Your task to perform on an android device: open app "Airtel Thanks" Image 0: 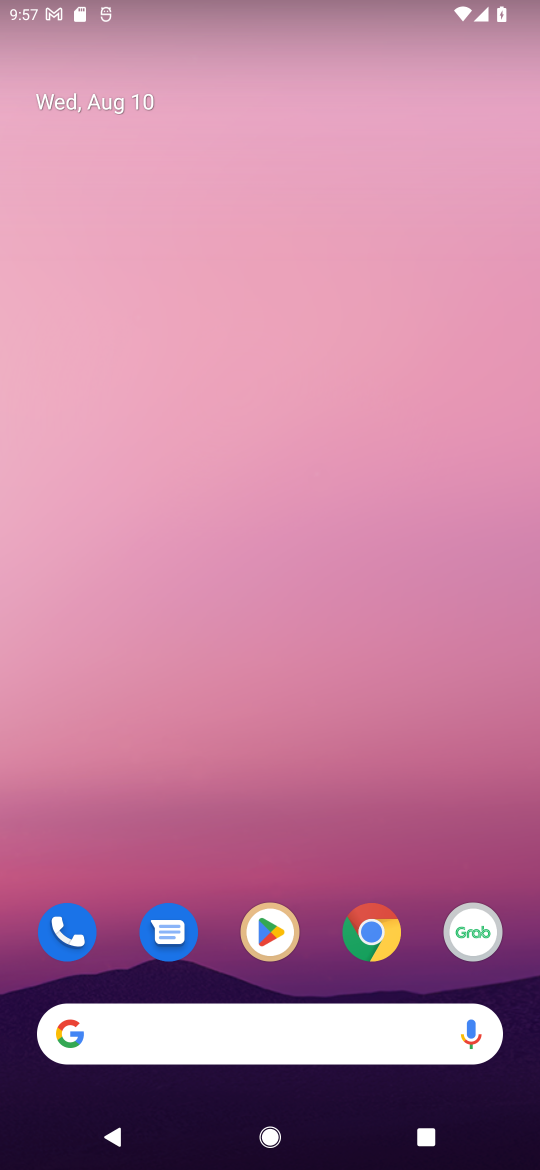
Step 0: click (261, 940)
Your task to perform on an android device: open app "Airtel Thanks" Image 1: 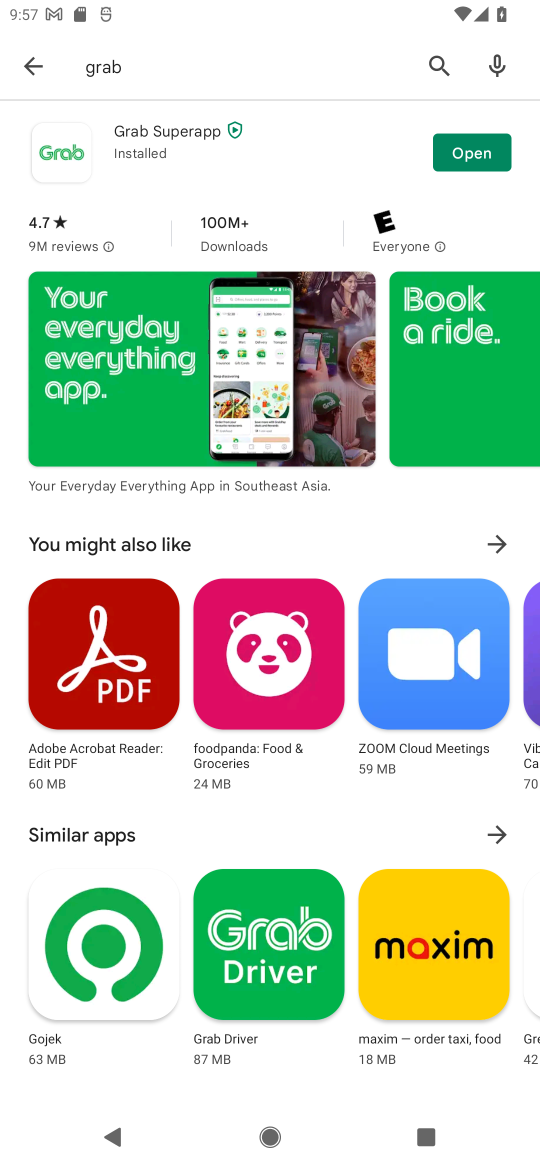
Step 1: click (430, 68)
Your task to perform on an android device: open app "Airtel Thanks" Image 2: 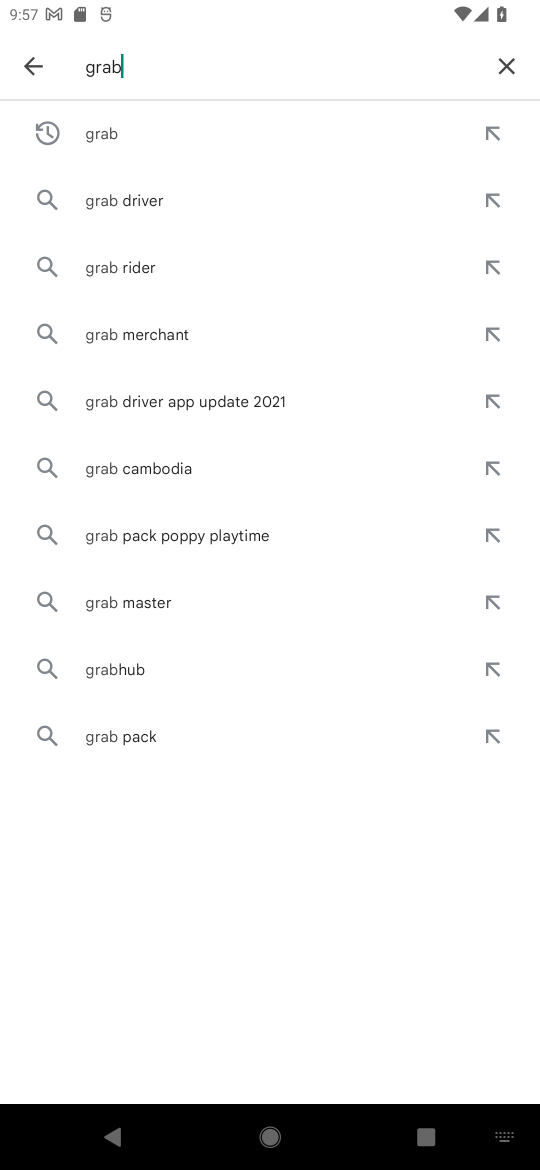
Step 2: click (508, 65)
Your task to perform on an android device: open app "Airtel Thanks" Image 3: 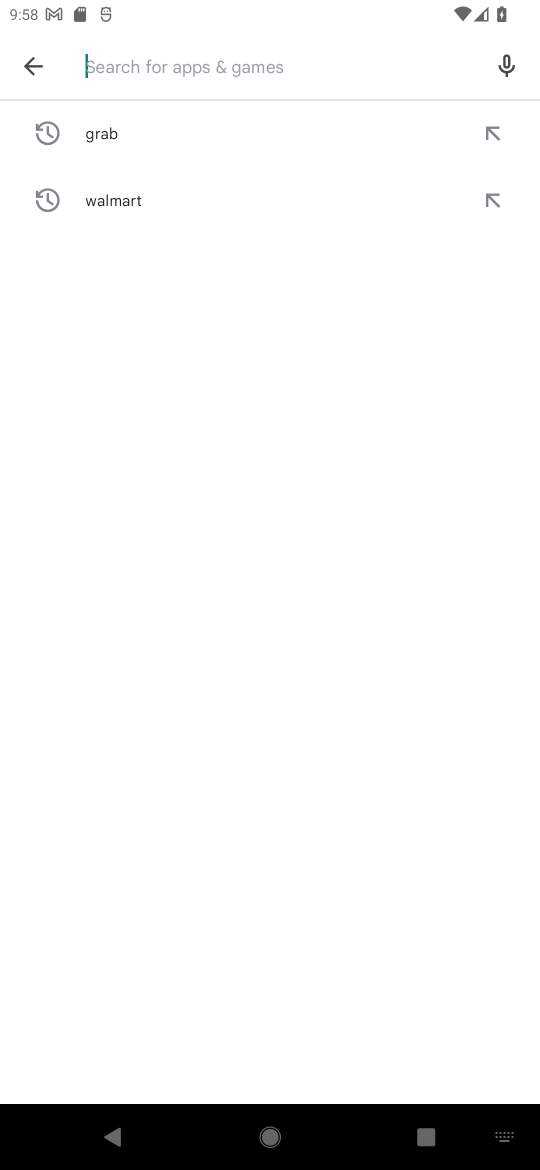
Step 3: type "airtel thanks"
Your task to perform on an android device: open app "Airtel Thanks" Image 4: 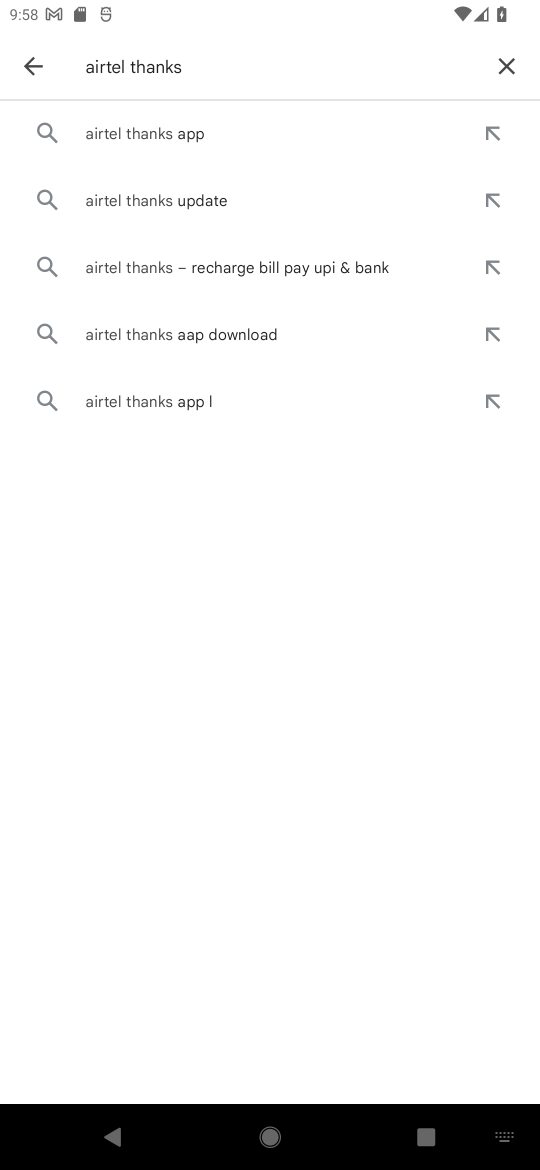
Step 4: click (195, 135)
Your task to perform on an android device: open app "Airtel Thanks" Image 5: 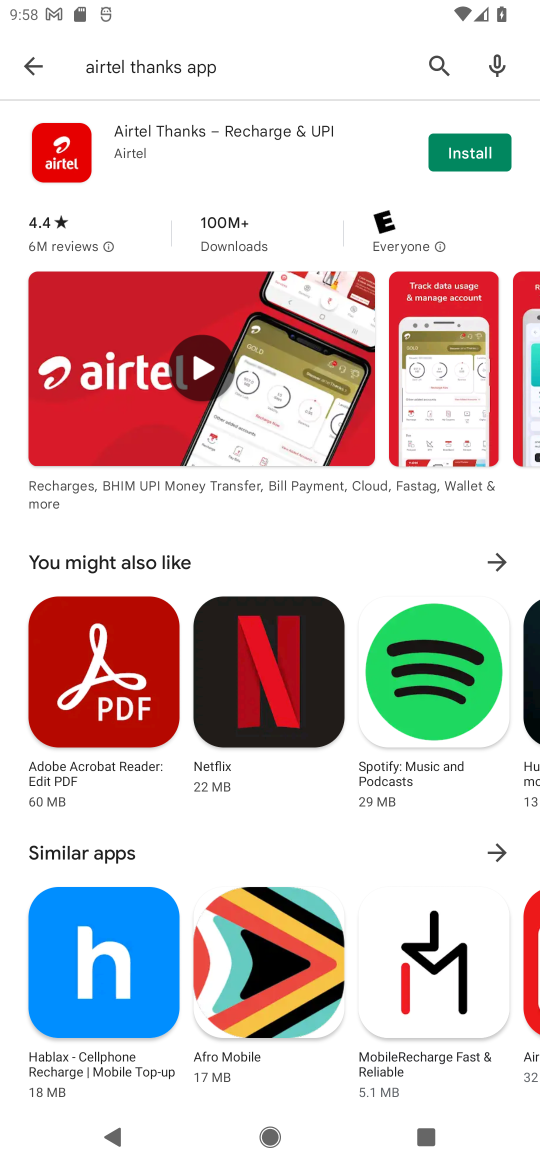
Step 5: click (455, 148)
Your task to perform on an android device: open app "Airtel Thanks" Image 6: 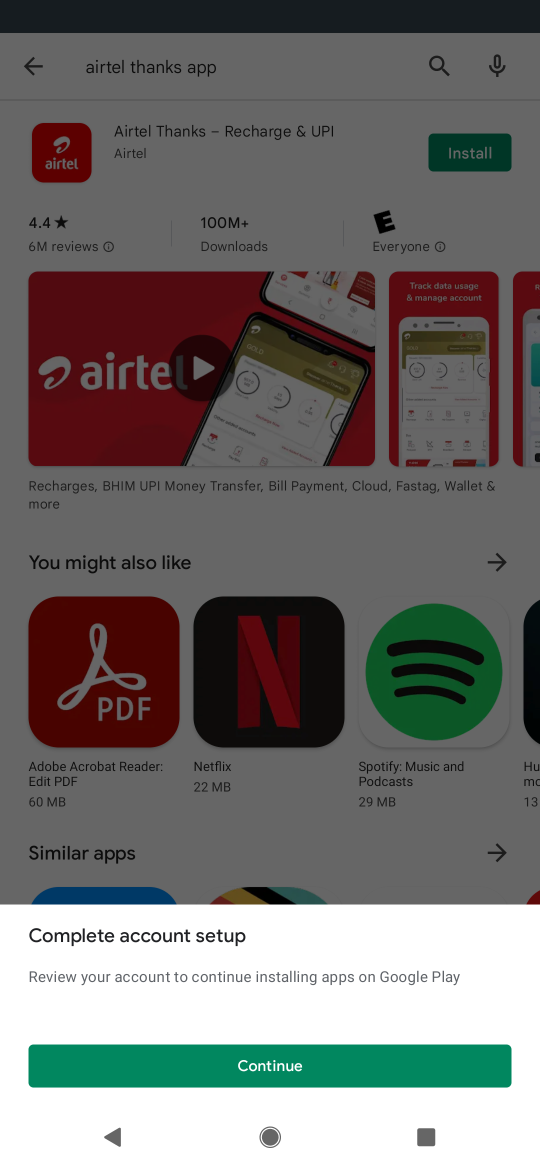
Step 6: click (446, 548)
Your task to perform on an android device: open app "Airtel Thanks" Image 7: 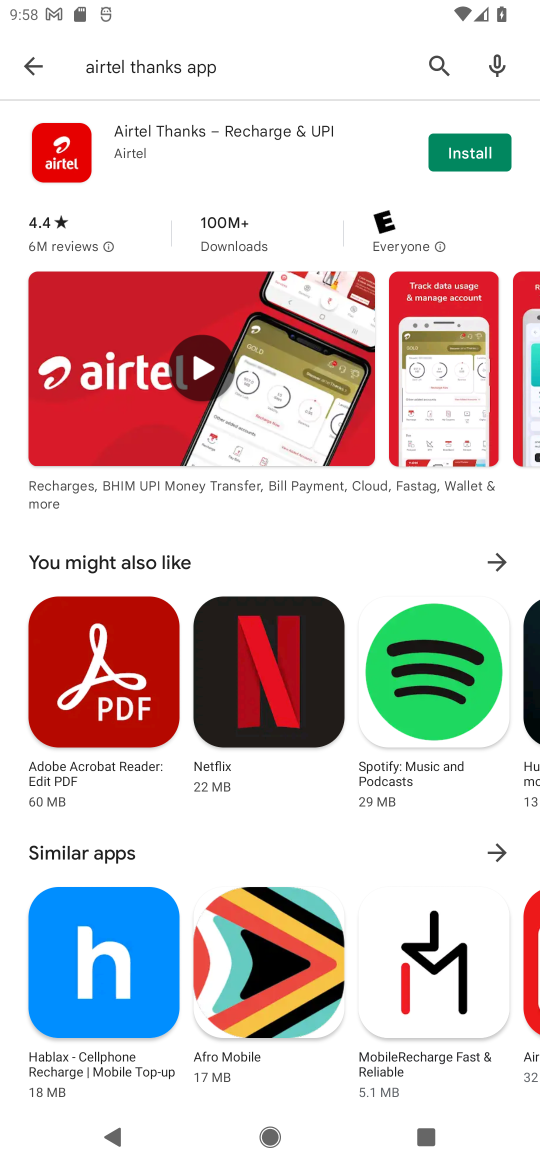
Step 7: task complete